Your task to perform on an android device: Open calendar and show me the first week of next month Image 0: 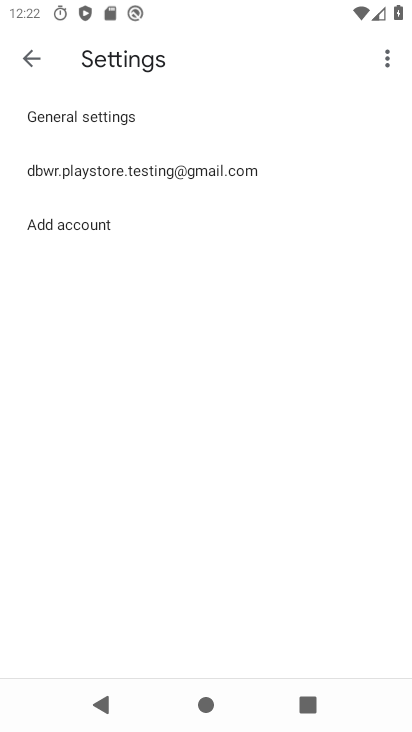
Step 0: drag from (210, 12) to (174, 320)
Your task to perform on an android device: Open calendar and show me the first week of next month Image 1: 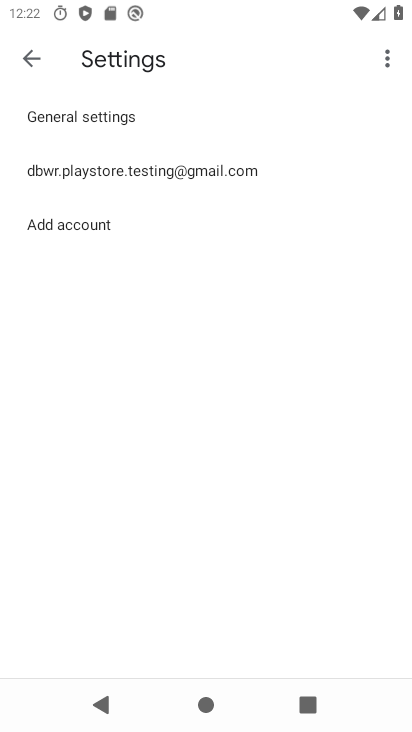
Step 1: press home button
Your task to perform on an android device: Open calendar and show me the first week of next month Image 2: 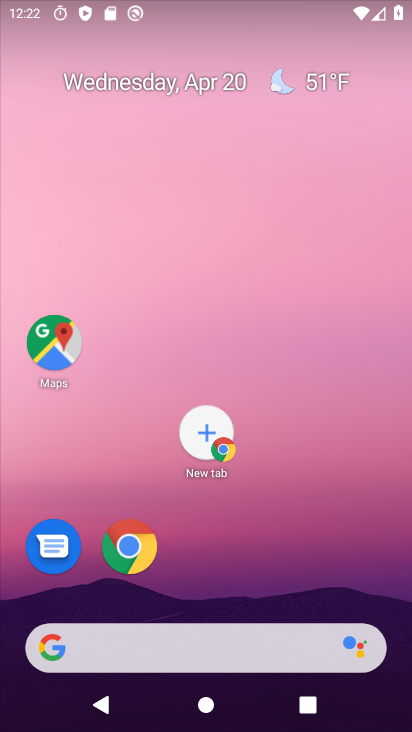
Step 2: click (135, 76)
Your task to perform on an android device: Open calendar and show me the first week of next month Image 3: 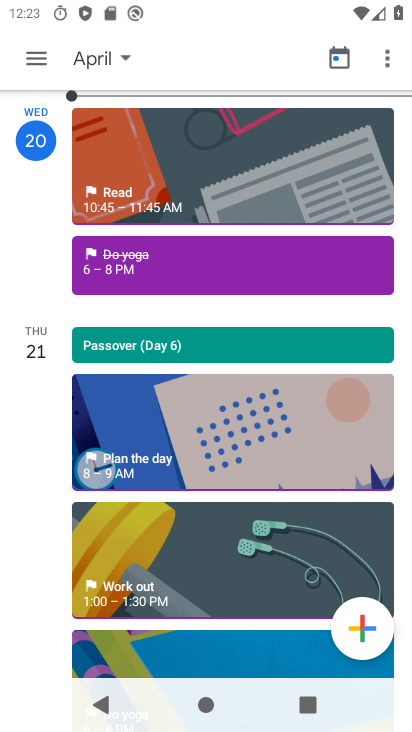
Step 3: click (117, 71)
Your task to perform on an android device: Open calendar and show me the first week of next month Image 4: 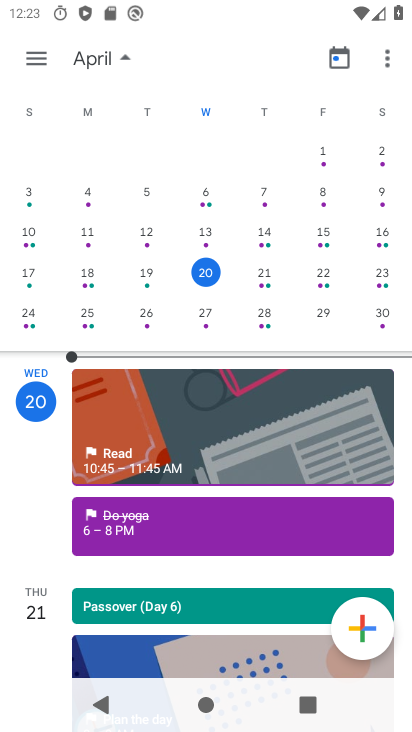
Step 4: drag from (376, 215) to (81, 174)
Your task to perform on an android device: Open calendar and show me the first week of next month Image 5: 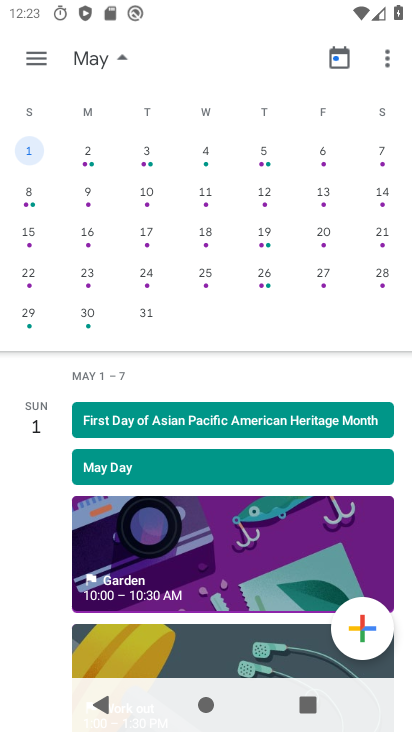
Step 5: click (155, 164)
Your task to perform on an android device: Open calendar and show me the first week of next month Image 6: 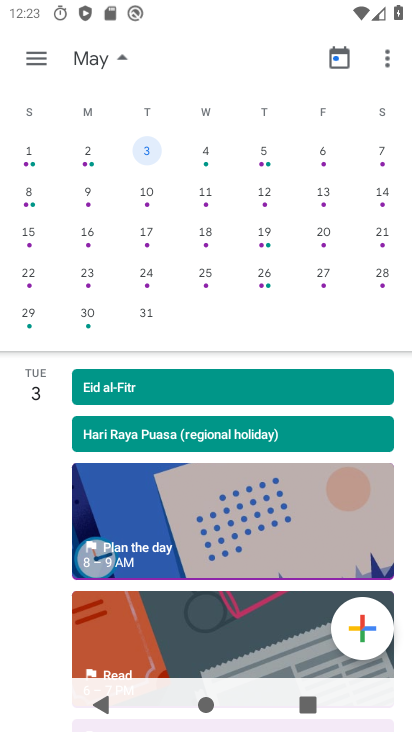
Step 6: task complete